Your task to perform on an android device: Open settings Image 0: 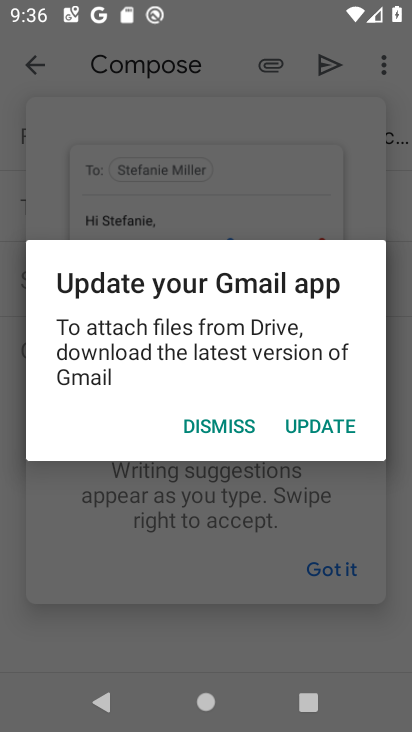
Step 0: press home button
Your task to perform on an android device: Open settings Image 1: 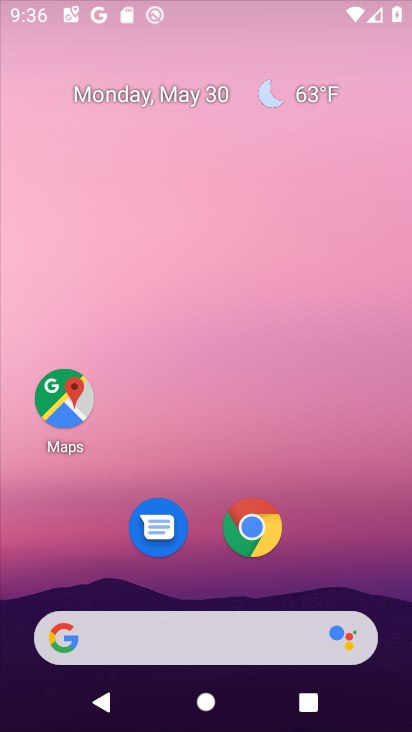
Step 1: drag from (109, 512) to (142, 195)
Your task to perform on an android device: Open settings Image 2: 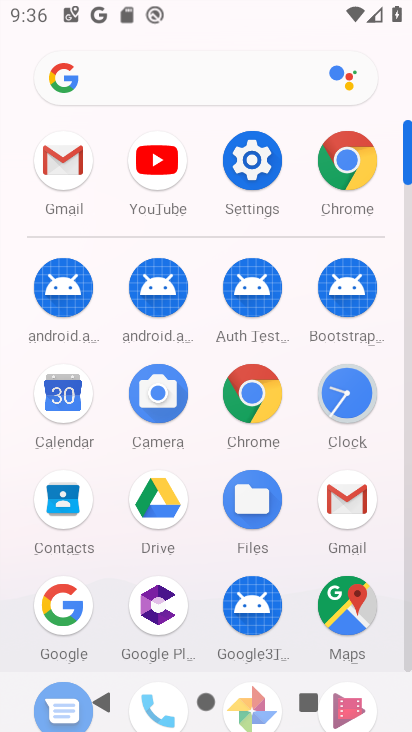
Step 2: click (245, 165)
Your task to perform on an android device: Open settings Image 3: 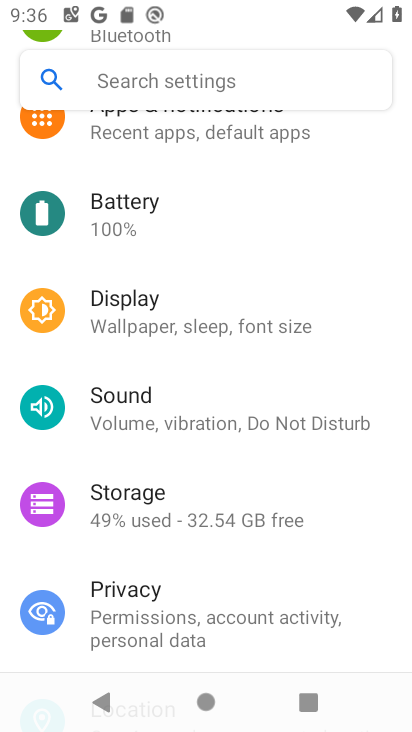
Step 3: task complete